Your task to perform on an android device: open app "Flipkart Online Shopping App" (install if not already installed) Image 0: 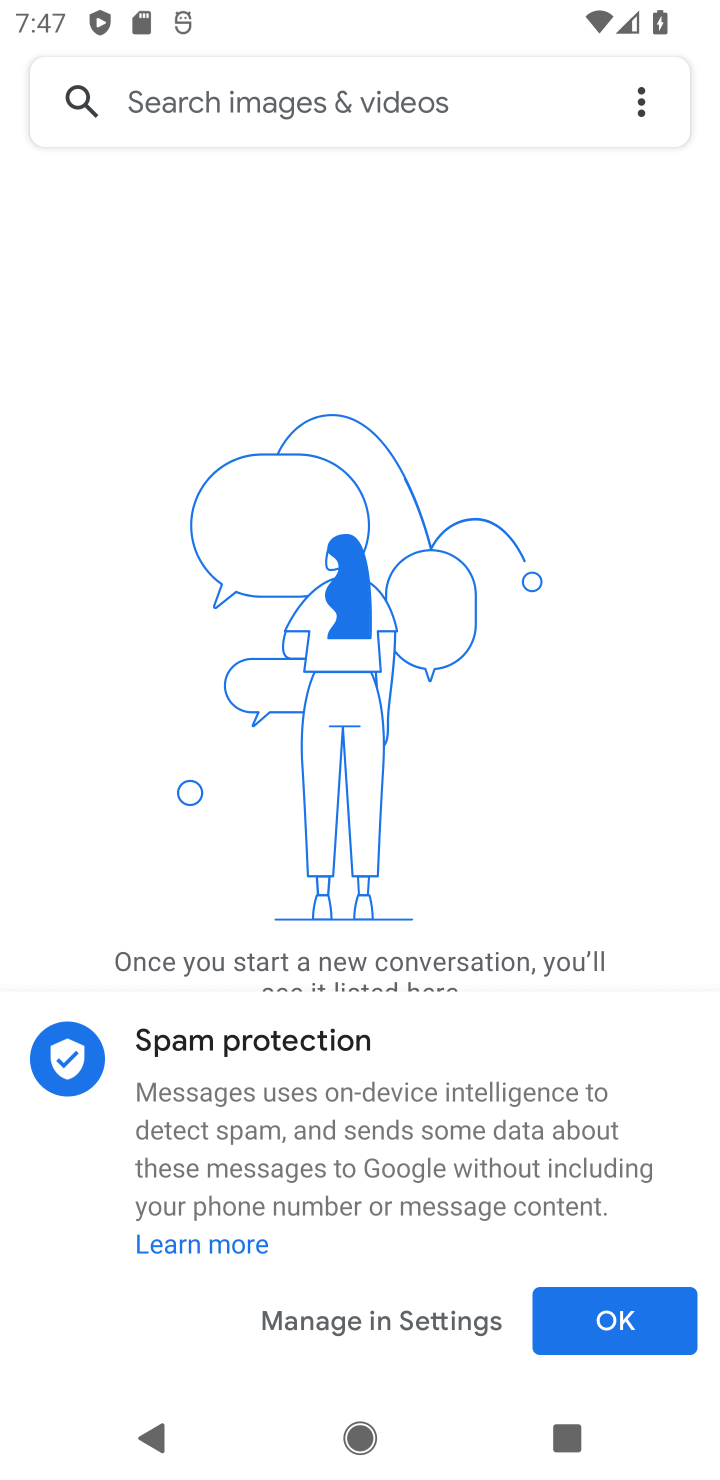
Step 0: press home button
Your task to perform on an android device: open app "Flipkart Online Shopping App" (install if not already installed) Image 1: 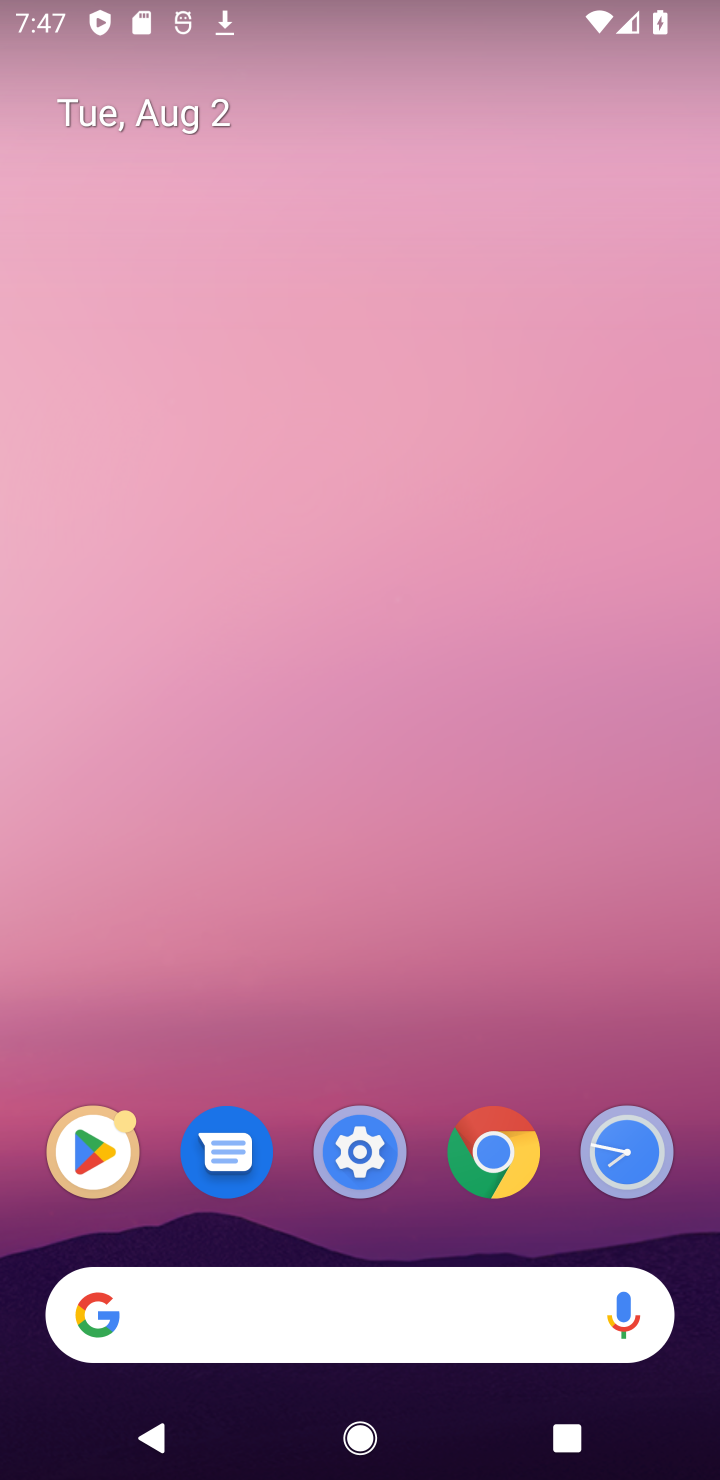
Step 1: drag from (330, 925) to (469, 36)
Your task to perform on an android device: open app "Flipkart Online Shopping App" (install if not already installed) Image 2: 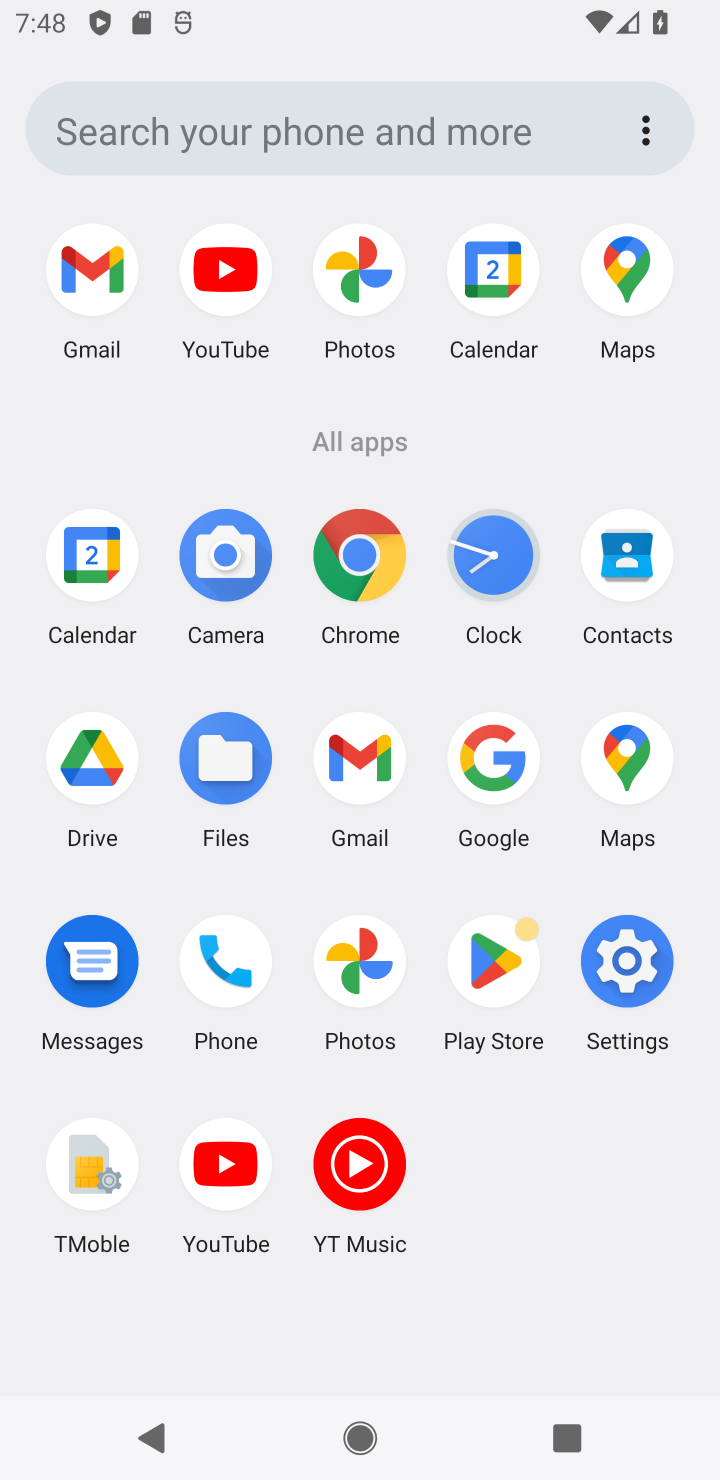
Step 2: click (309, 129)
Your task to perform on an android device: open app "Flipkart Online Shopping App" (install if not already installed) Image 3: 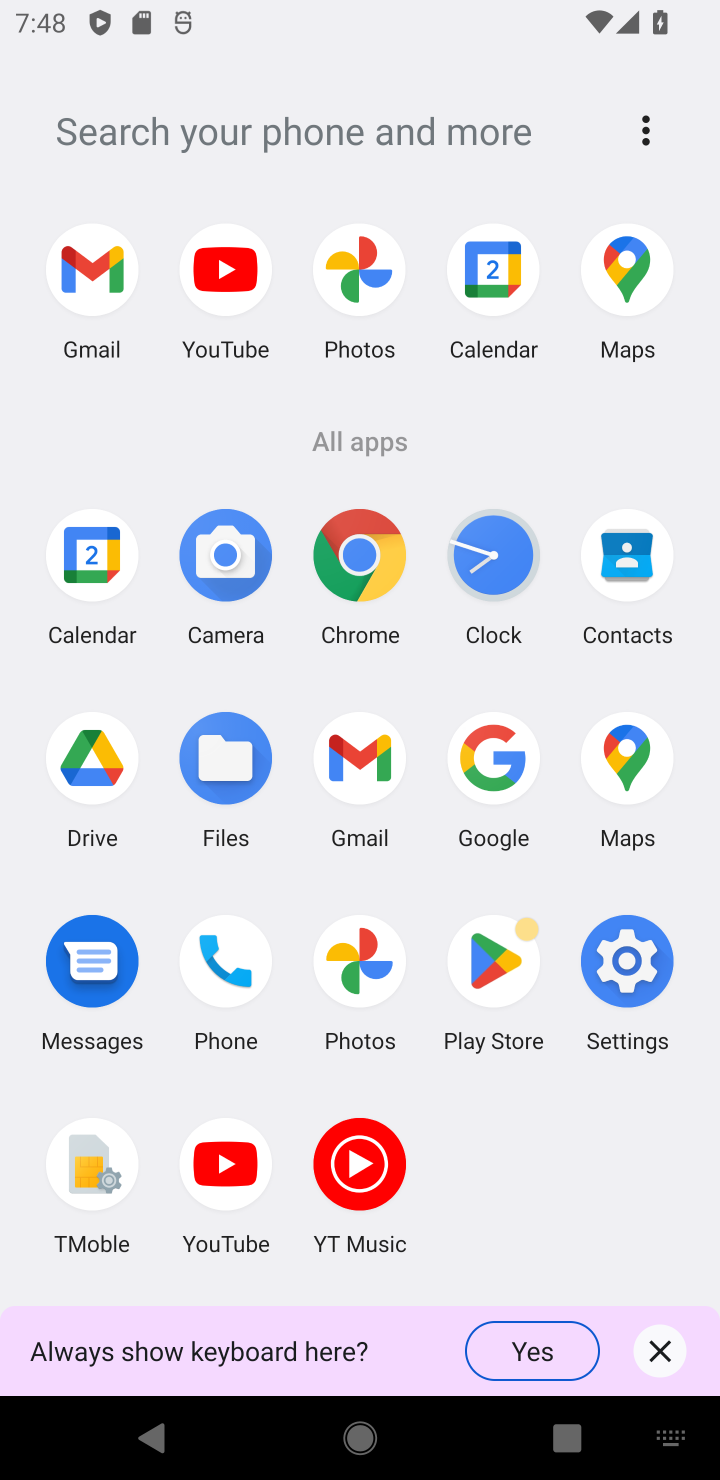
Step 3: type "Flipkart Online Shopping App"
Your task to perform on an android device: open app "Flipkart Online Shopping App" (install if not already installed) Image 4: 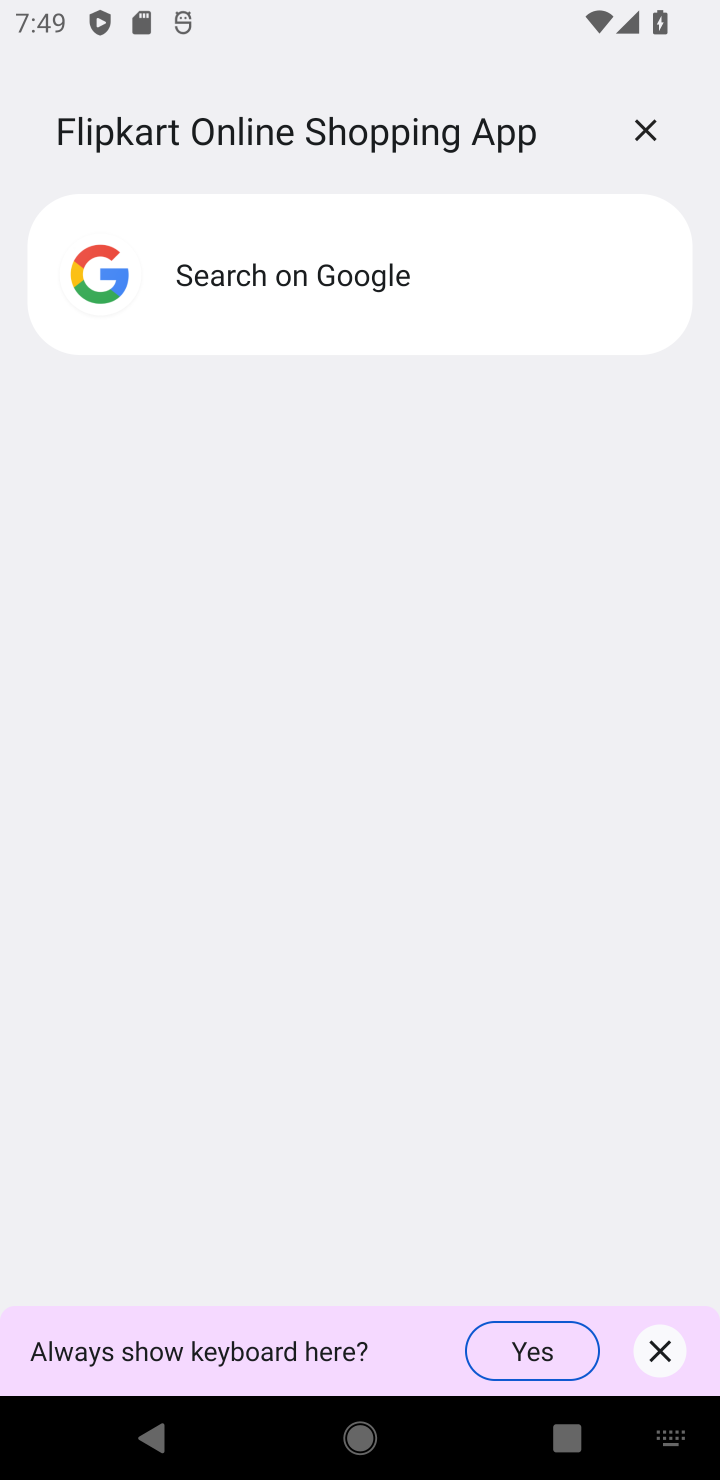
Step 4: press home button
Your task to perform on an android device: open app "Flipkart Online Shopping App" (install if not already installed) Image 5: 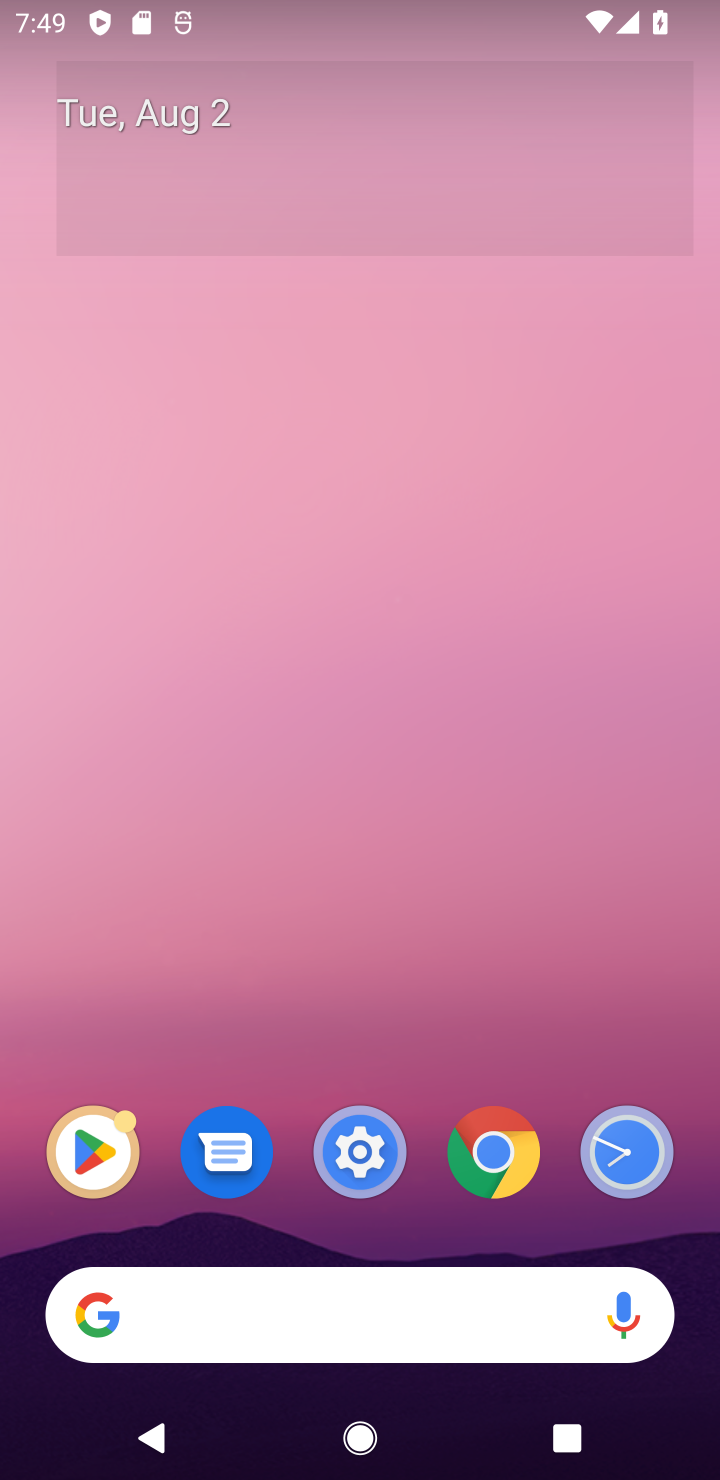
Step 5: click (56, 1155)
Your task to perform on an android device: open app "Flipkart Online Shopping App" (install if not already installed) Image 6: 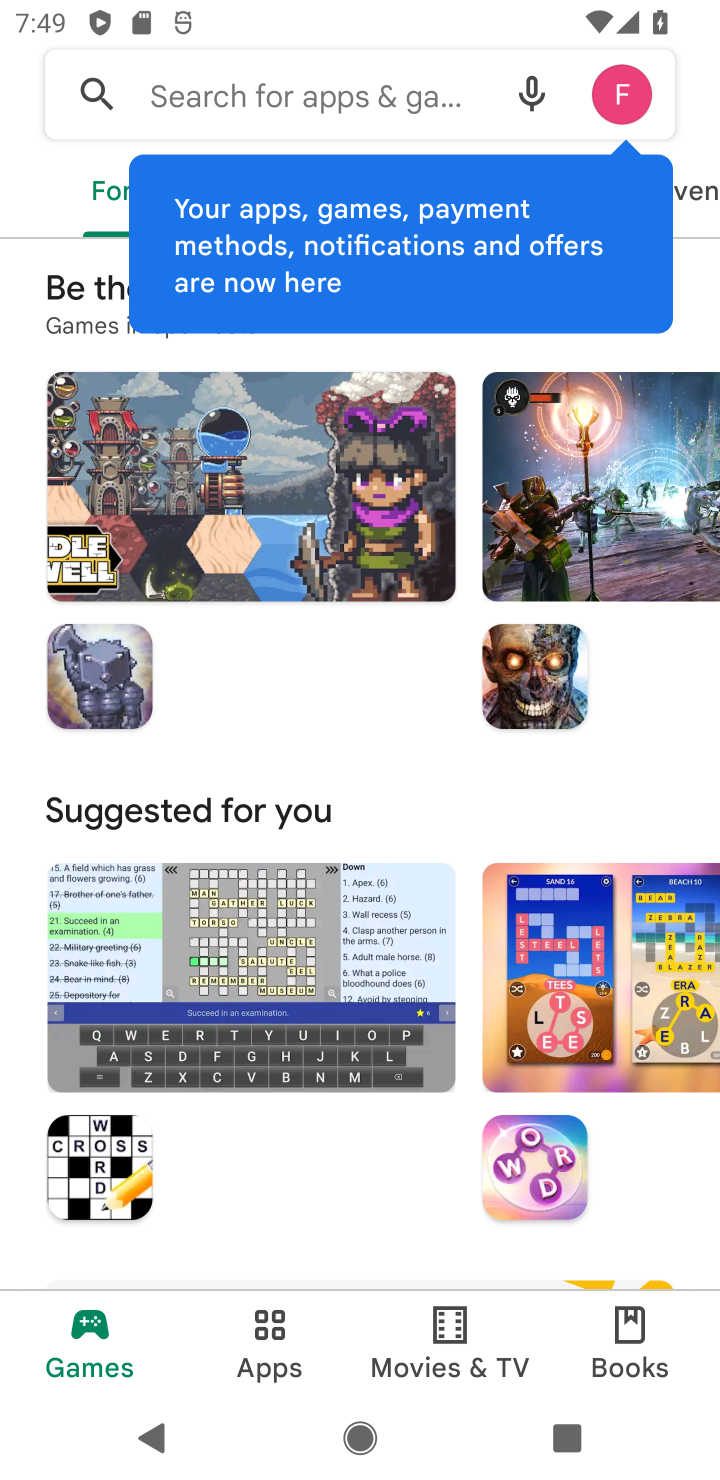
Step 6: click (265, 102)
Your task to perform on an android device: open app "Flipkart Online Shopping App" (install if not already installed) Image 7: 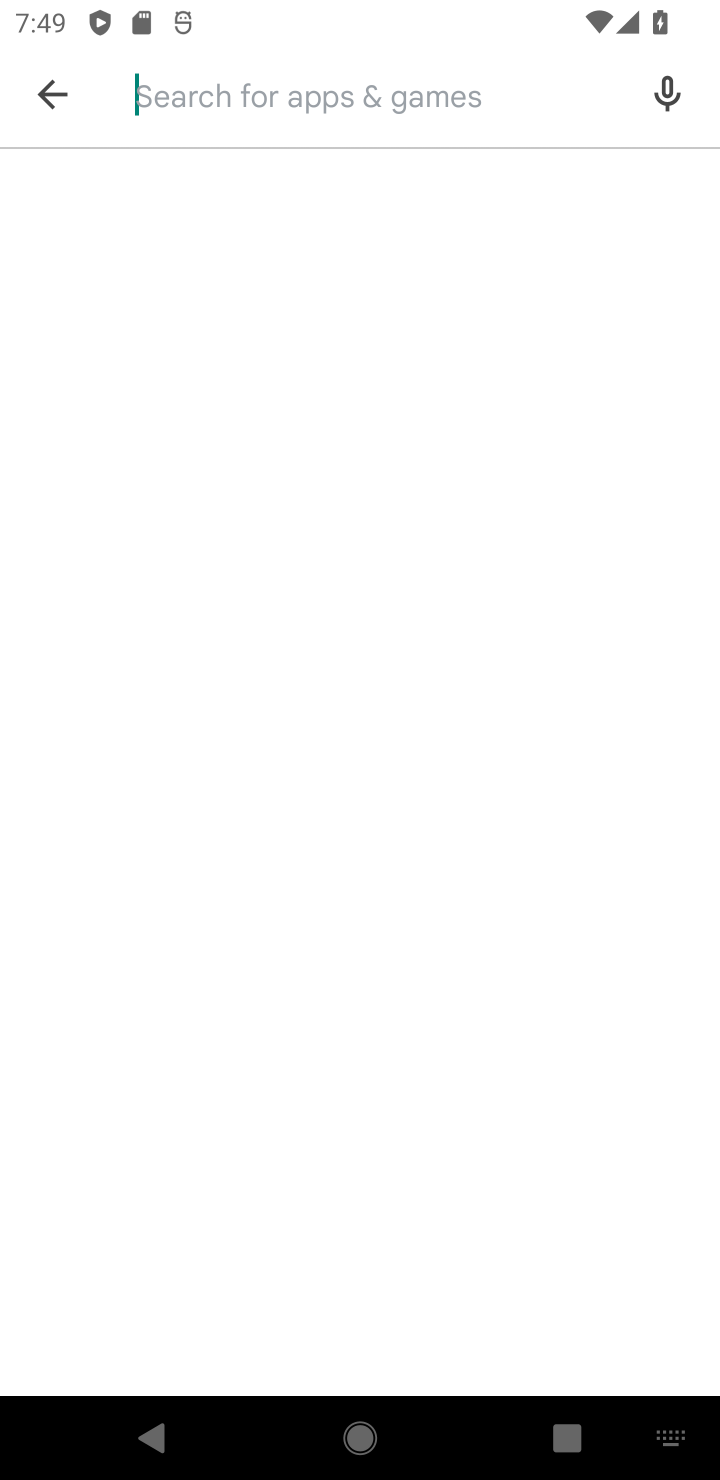
Step 7: type "Flipkart Online Shopping App"
Your task to perform on an android device: open app "Flipkart Online Shopping App" (install if not already installed) Image 8: 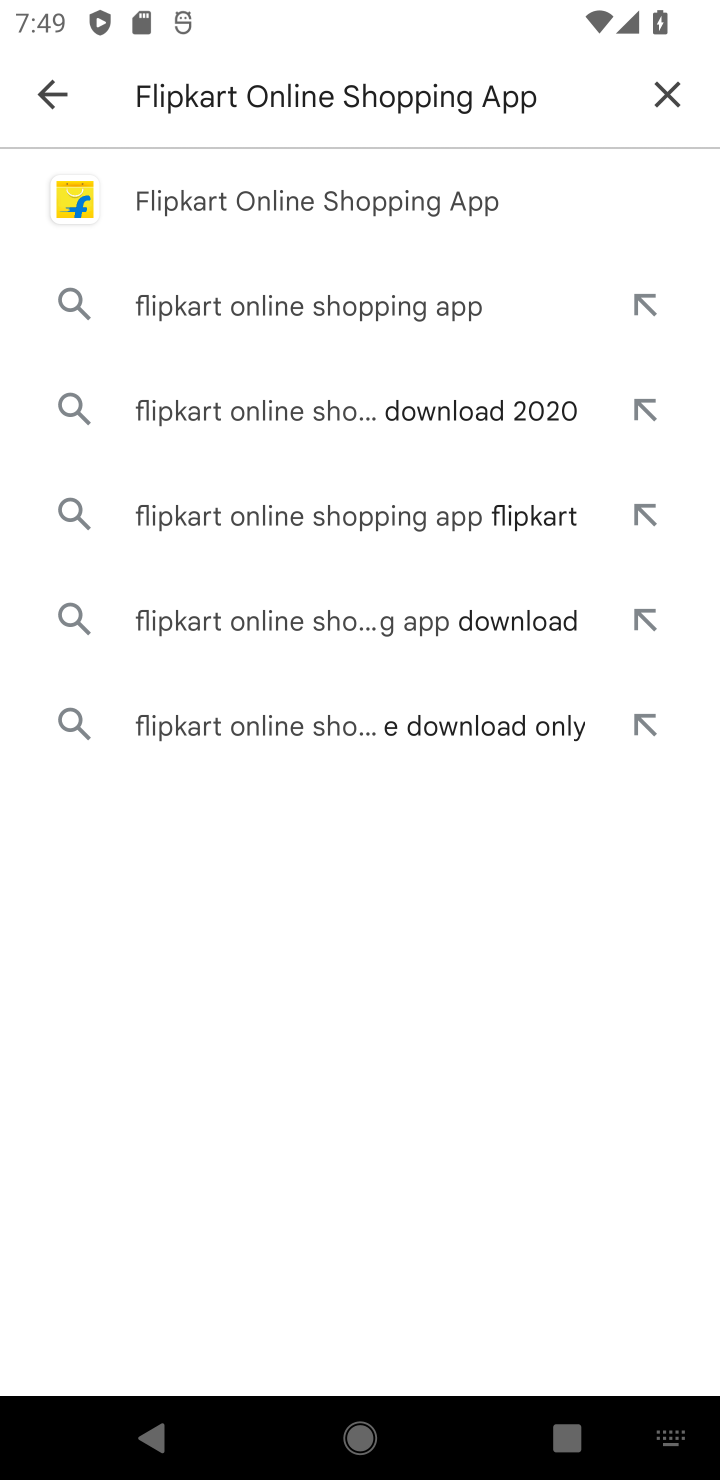
Step 8: click (381, 203)
Your task to perform on an android device: open app "Flipkart Online Shopping App" (install if not already installed) Image 9: 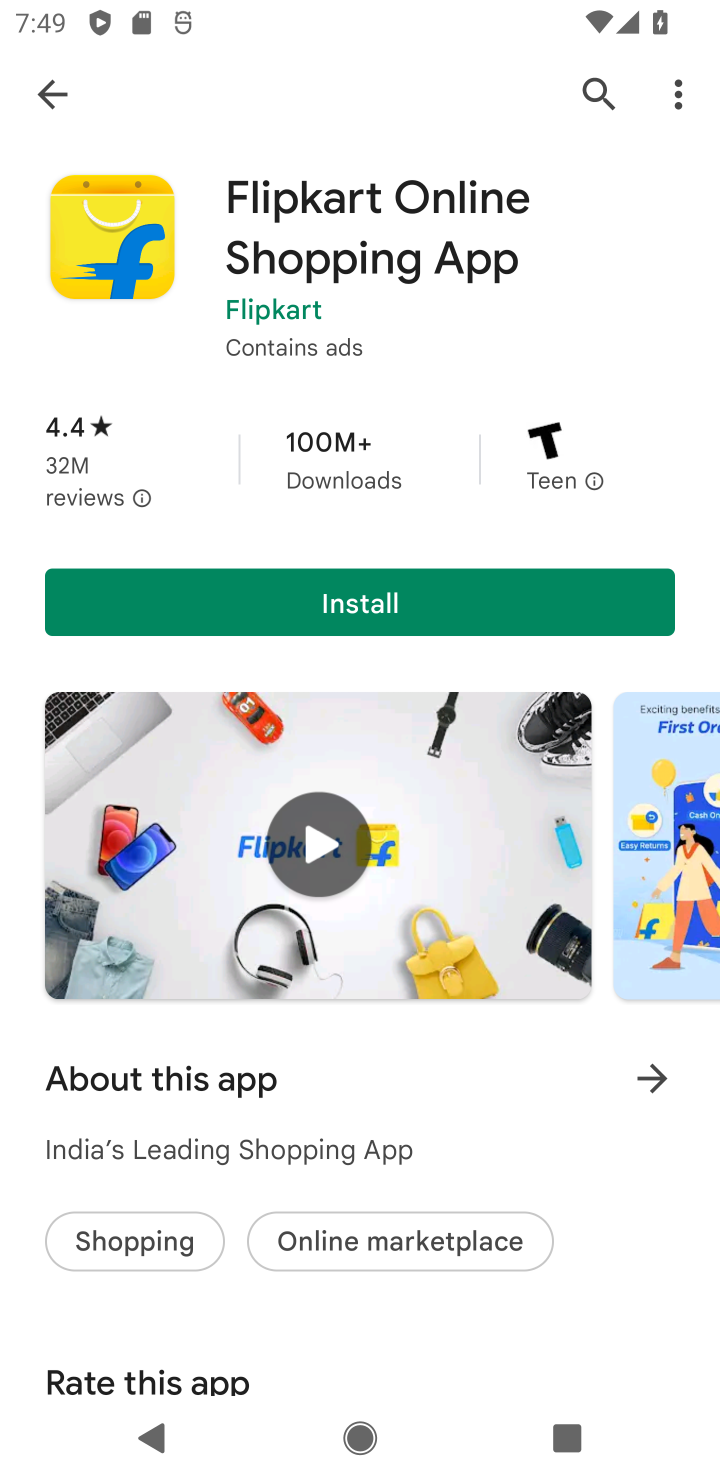
Step 9: click (372, 586)
Your task to perform on an android device: open app "Flipkart Online Shopping App" (install if not already installed) Image 10: 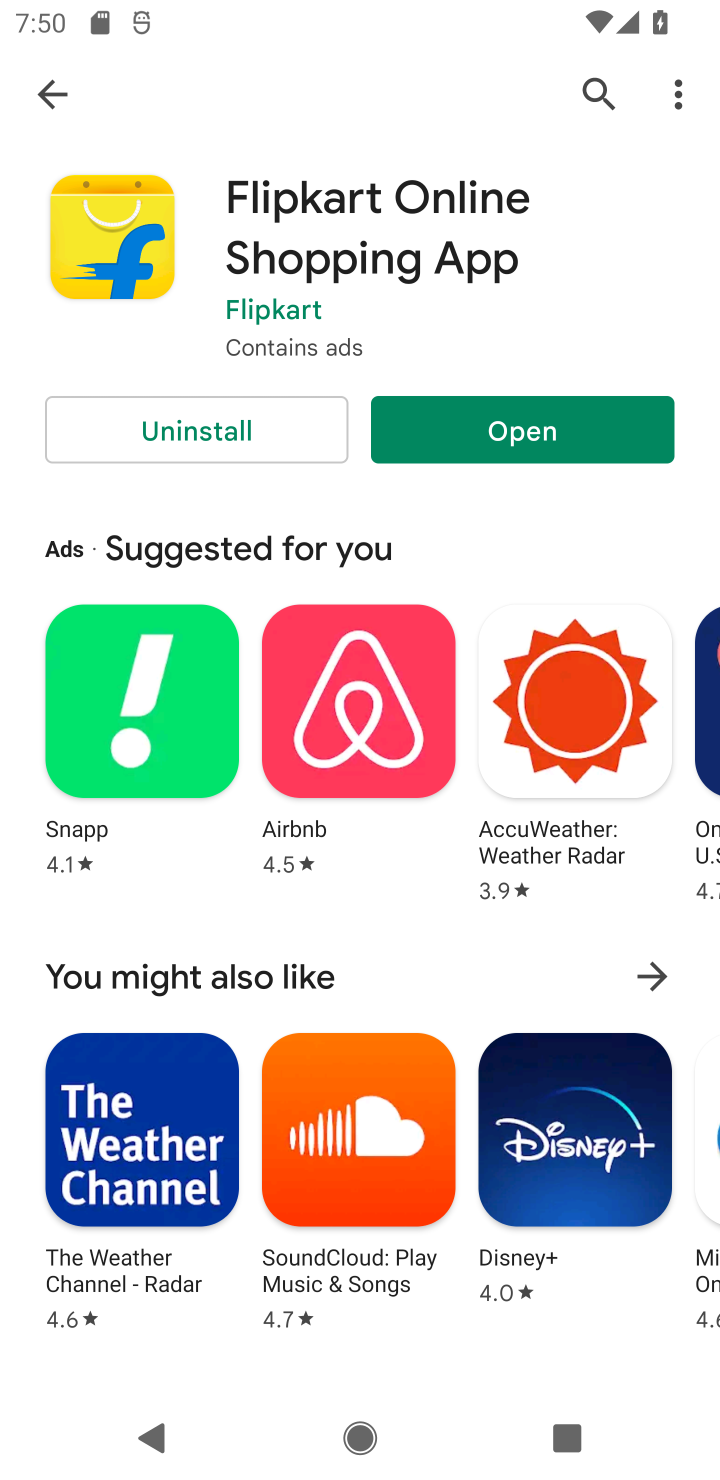
Step 10: click (563, 408)
Your task to perform on an android device: open app "Flipkart Online Shopping App" (install if not already installed) Image 11: 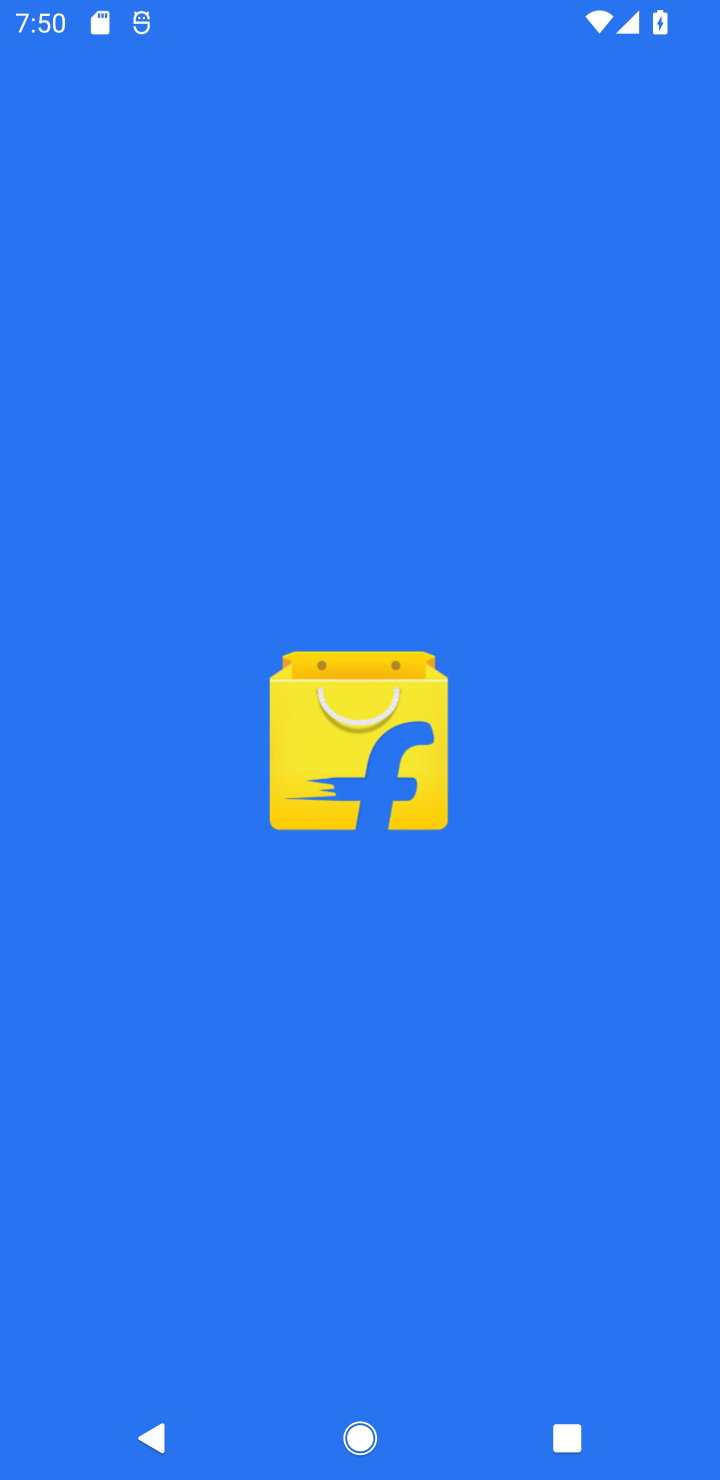
Step 11: task complete